Your task to perform on an android device: change the clock display to digital Image 0: 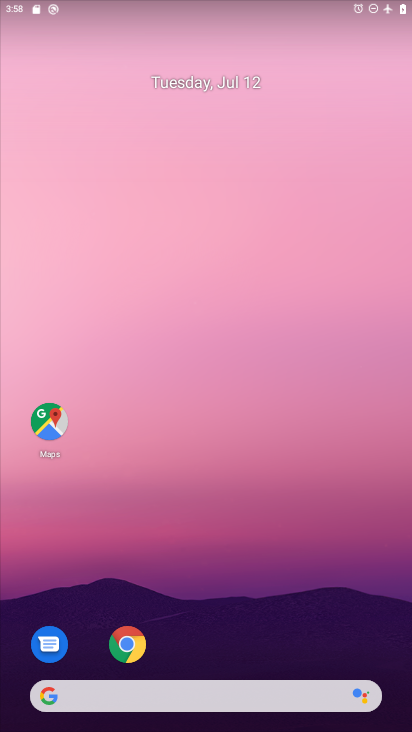
Step 0: click (231, 159)
Your task to perform on an android device: change the clock display to digital Image 1: 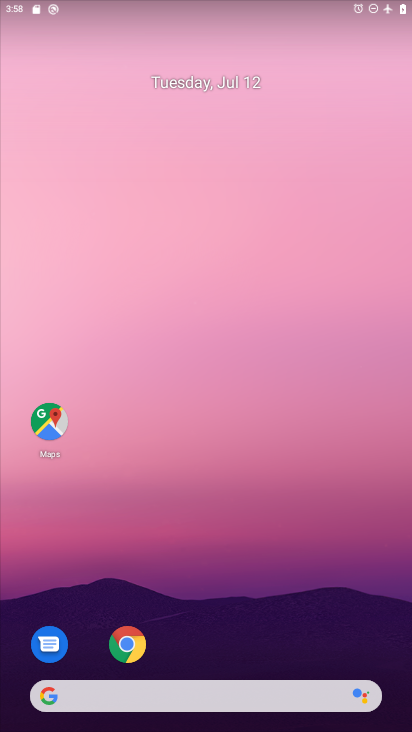
Step 1: drag from (318, 549) to (282, 74)
Your task to perform on an android device: change the clock display to digital Image 2: 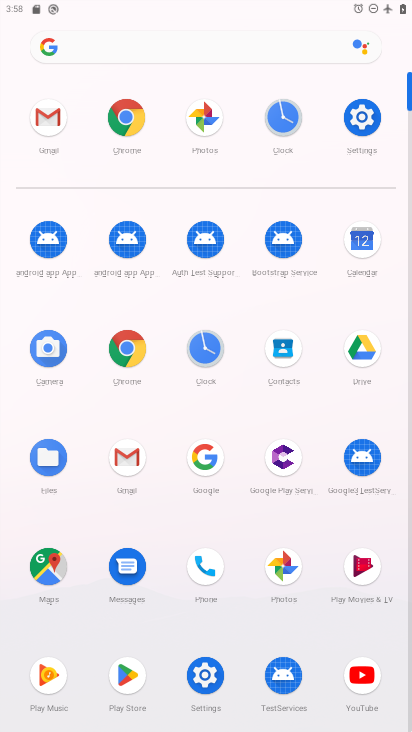
Step 2: click (201, 341)
Your task to perform on an android device: change the clock display to digital Image 3: 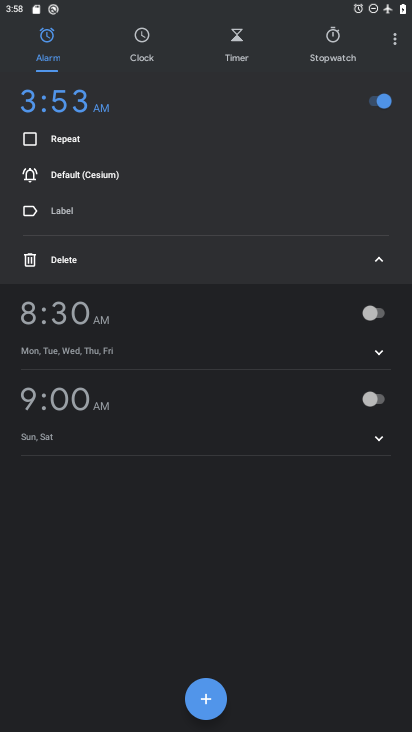
Step 3: click (395, 40)
Your task to perform on an android device: change the clock display to digital Image 4: 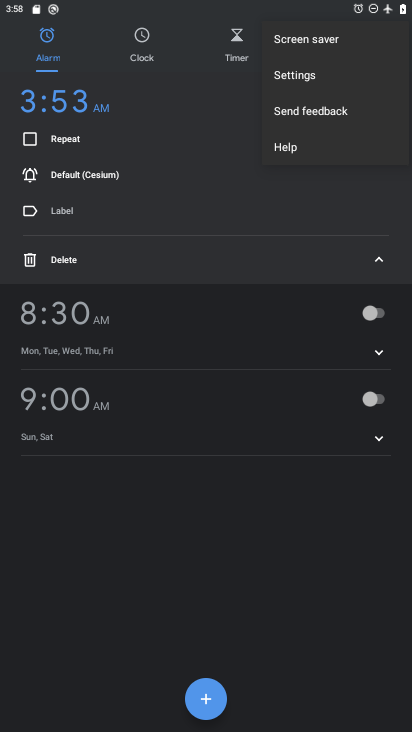
Step 4: click (297, 76)
Your task to perform on an android device: change the clock display to digital Image 5: 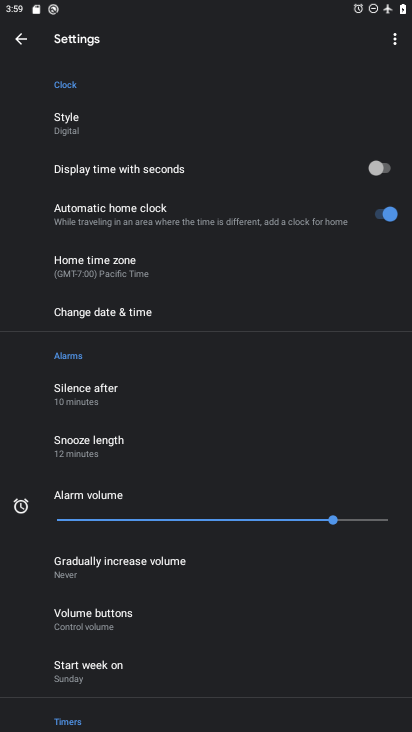
Step 5: task complete